Your task to perform on an android device: turn on airplane mode Image 0: 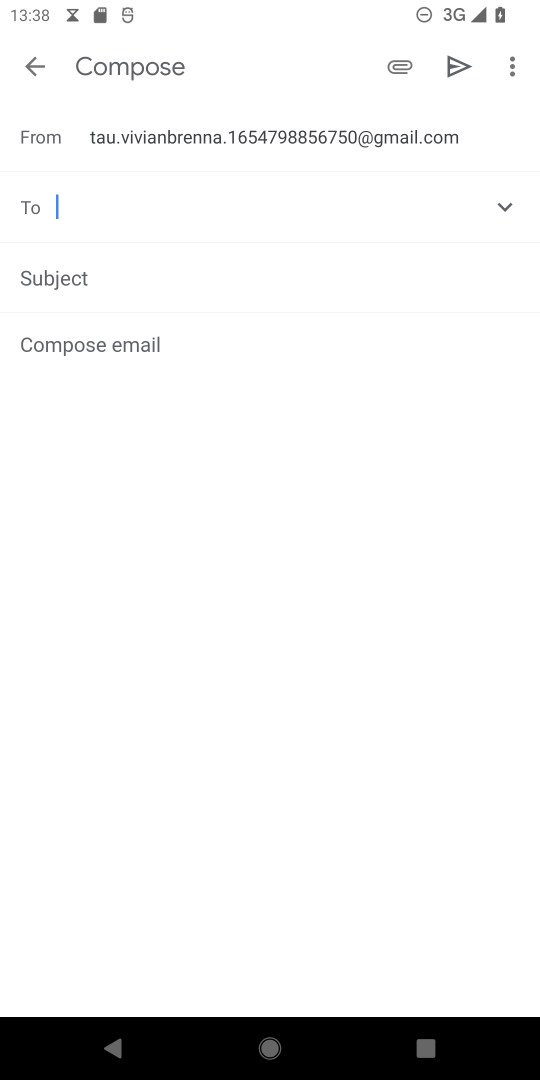
Step 0: press home button
Your task to perform on an android device: turn on airplane mode Image 1: 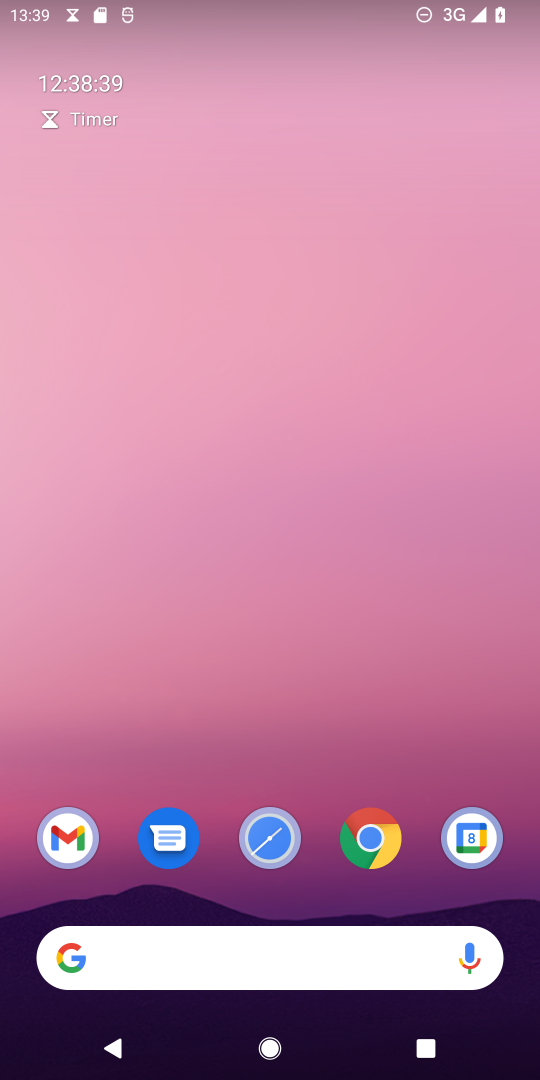
Step 1: drag from (327, 894) to (301, 171)
Your task to perform on an android device: turn on airplane mode Image 2: 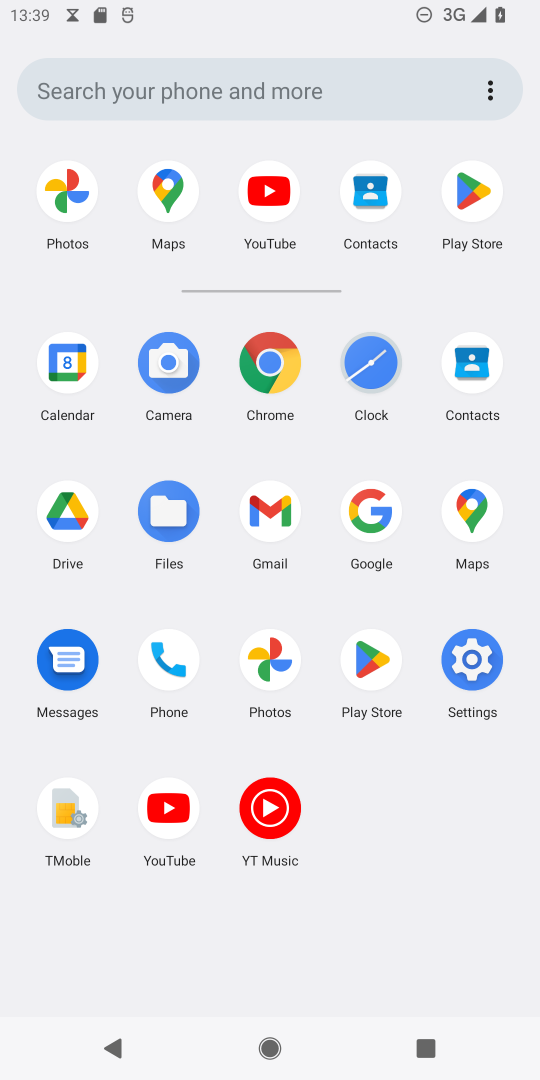
Step 2: click (466, 658)
Your task to perform on an android device: turn on airplane mode Image 3: 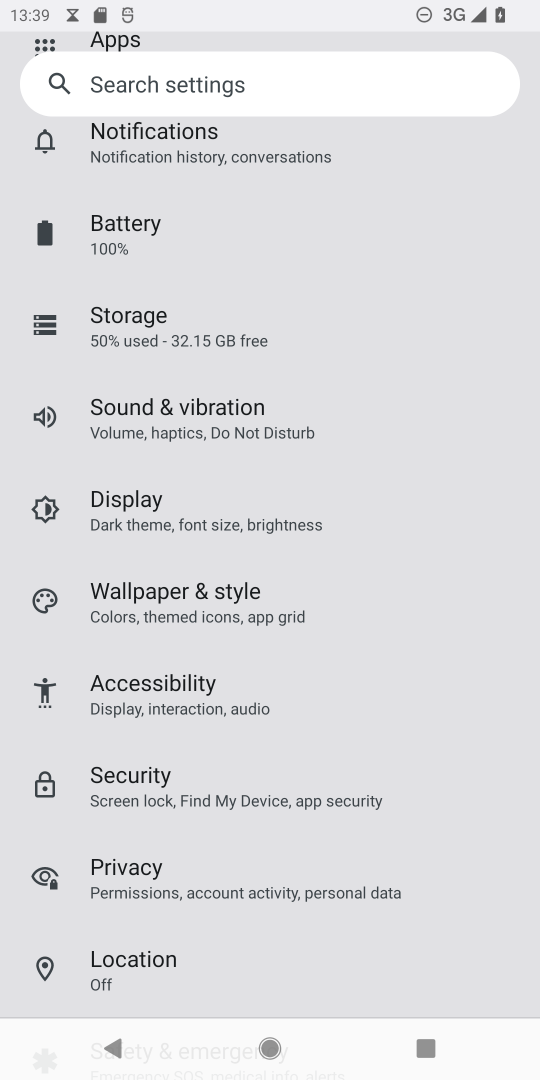
Step 3: drag from (325, 199) to (305, 877)
Your task to perform on an android device: turn on airplane mode Image 4: 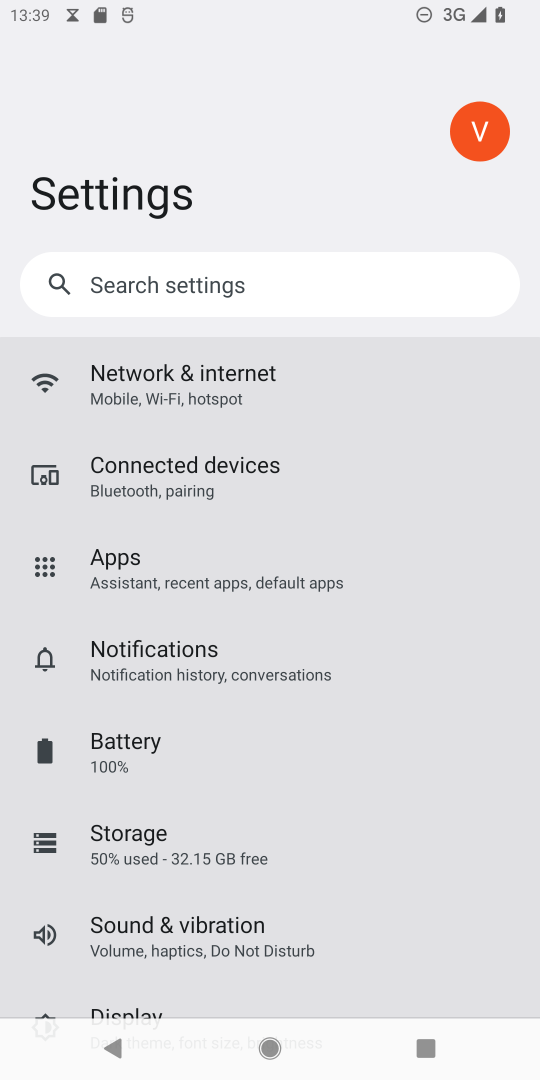
Step 4: click (170, 381)
Your task to perform on an android device: turn on airplane mode Image 5: 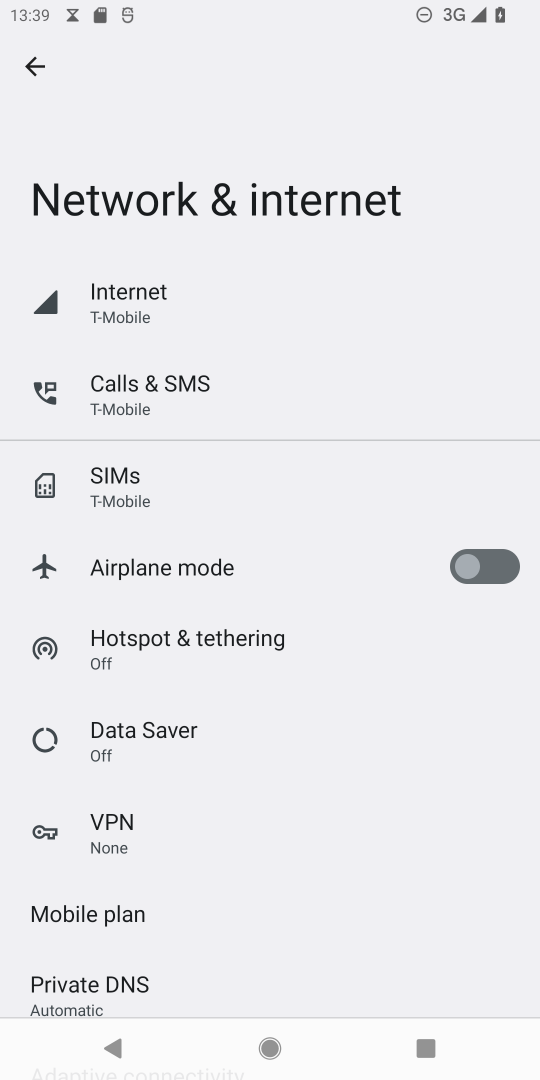
Step 5: click (475, 560)
Your task to perform on an android device: turn on airplane mode Image 6: 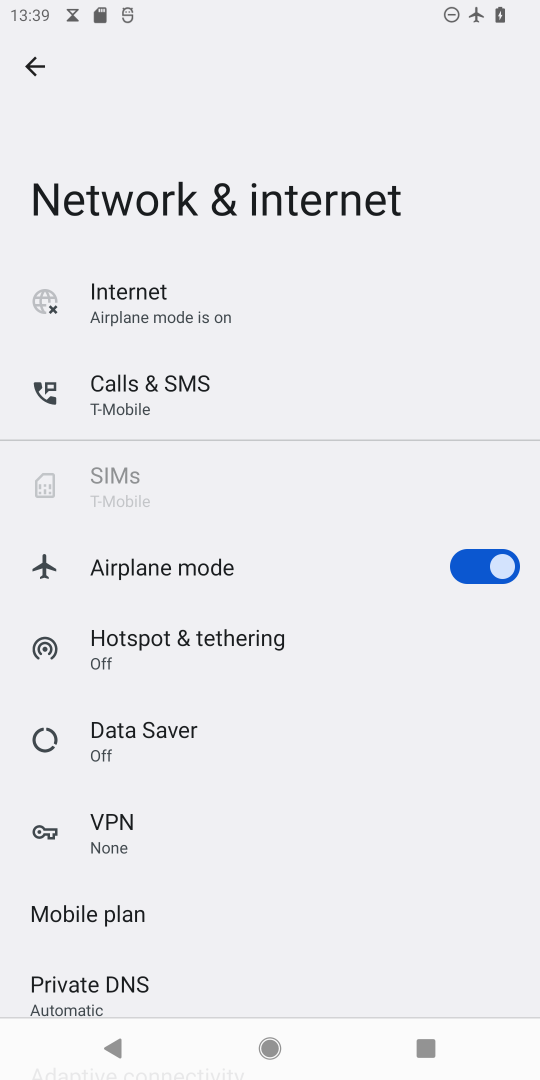
Step 6: task complete